Your task to perform on an android device: Open wifi settings Image 0: 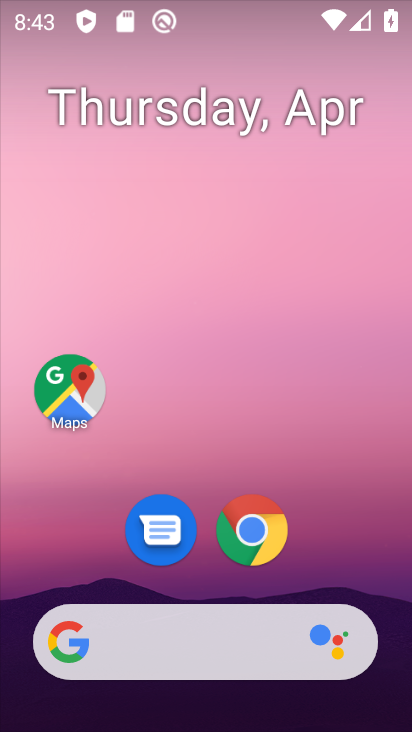
Step 0: drag from (343, 547) to (257, 63)
Your task to perform on an android device: Open wifi settings Image 1: 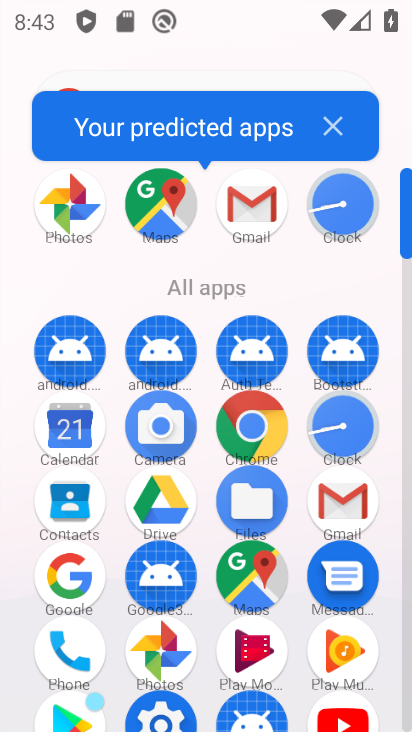
Step 1: click (406, 719)
Your task to perform on an android device: Open wifi settings Image 2: 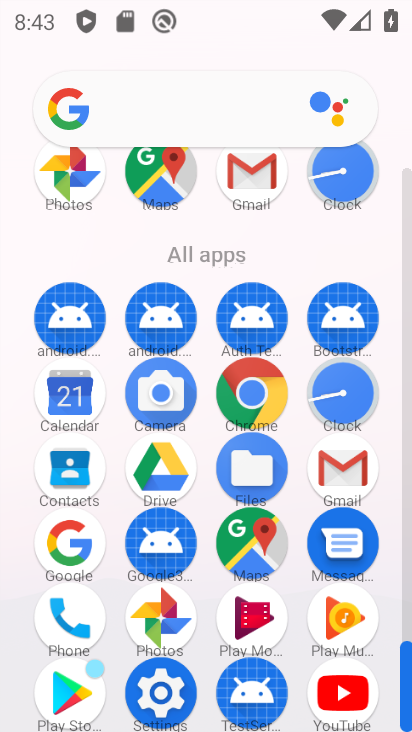
Step 2: click (163, 686)
Your task to perform on an android device: Open wifi settings Image 3: 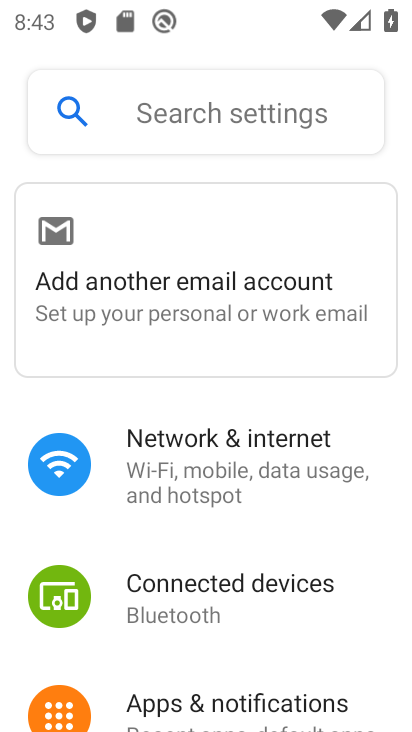
Step 3: click (173, 458)
Your task to perform on an android device: Open wifi settings Image 4: 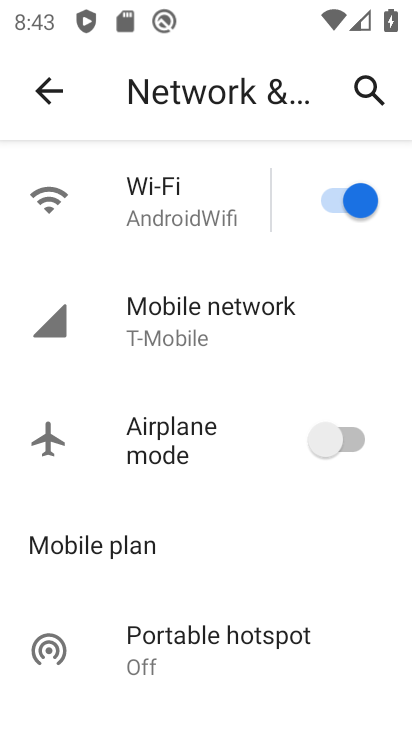
Step 4: click (137, 189)
Your task to perform on an android device: Open wifi settings Image 5: 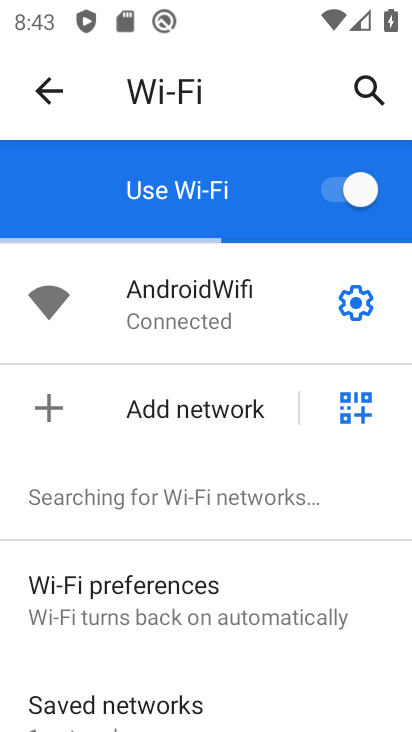
Step 5: task complete